Your task to perform on an android device: Open the web browser Image 0: 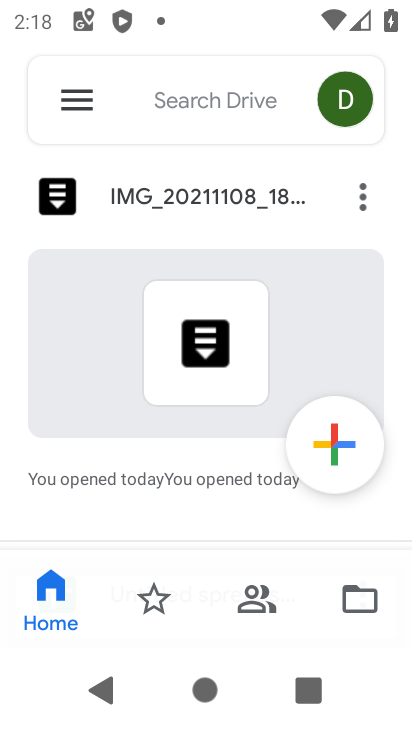
Step 0: press home button
Your task to perform on an android device: Open the web browser Image 1: 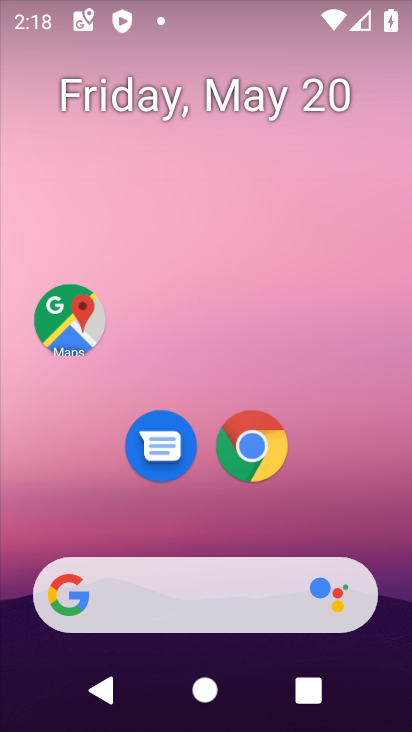
Step 1: click (256, 452)
Your task to perform on an android device: Open the web browser Image 2: 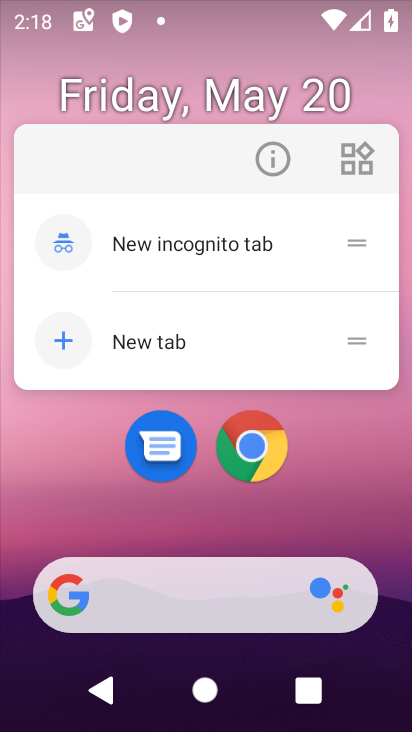
Step 2: click (256, 452)
Your task to perform on an android device: Open the web browser Image 3: 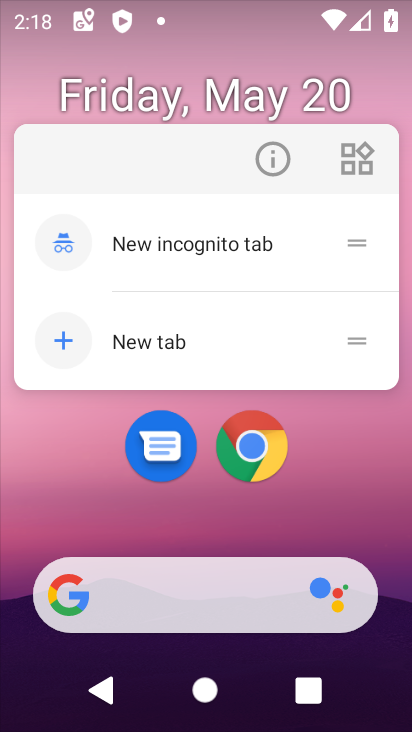
Step 3: click (256, 451)
Your task to perform on an android device: Open the web browser Image 4: 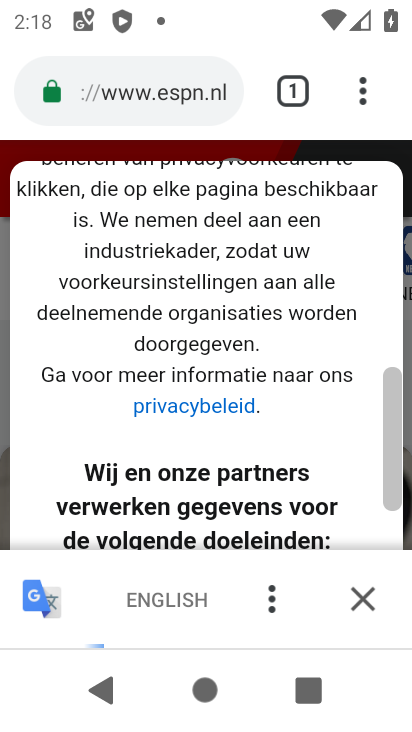
Step 4: task complete